Your task to perform on an android device: delete a single message in the gmail app Image 0: 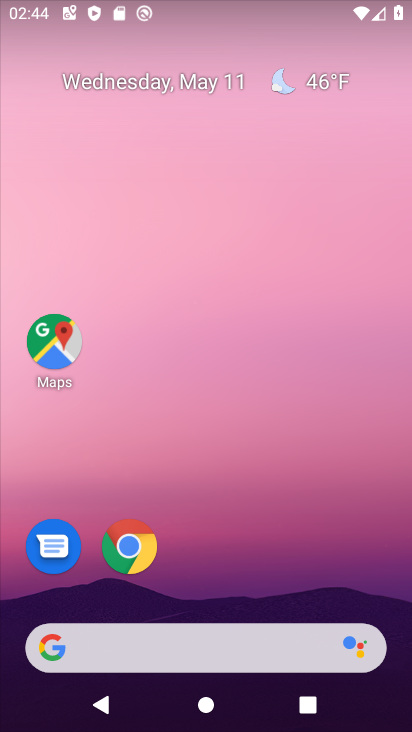
Step 0: drag from (209, 599) to (284, 353)
Your task to perform on an android device: delete a single message in the gmail app Image 1: 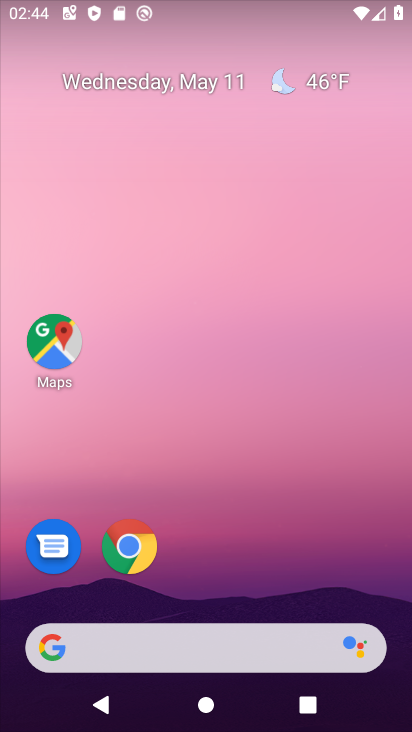
Step 1: drag from (231, 578) to (253, 46)
Your task to perform on an android device: delete a single message in the gmail app Image 2: 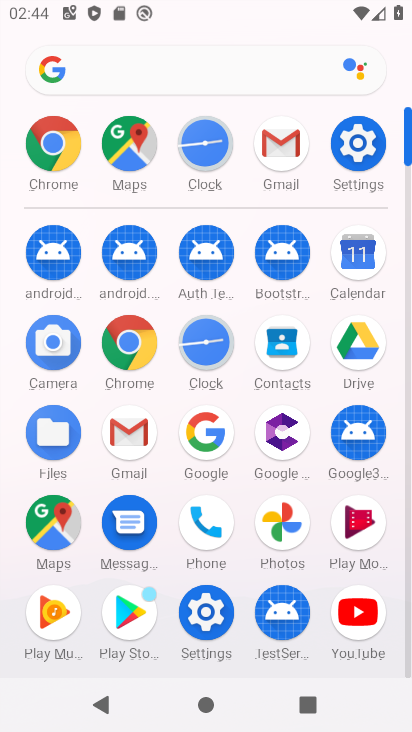
Step 2: click (127, 432)
Your task to perform on an android device: delete a single message in the gmail app Image 3: 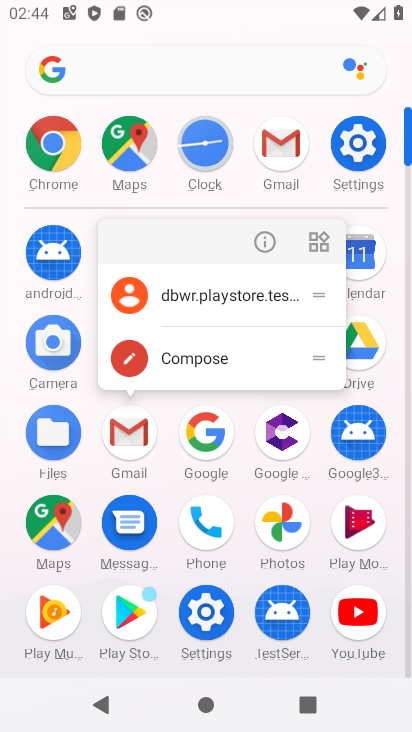
Step 3: click (267, 236)
Your task to perform on an android device: delete a single message in the gmail app Image 4: 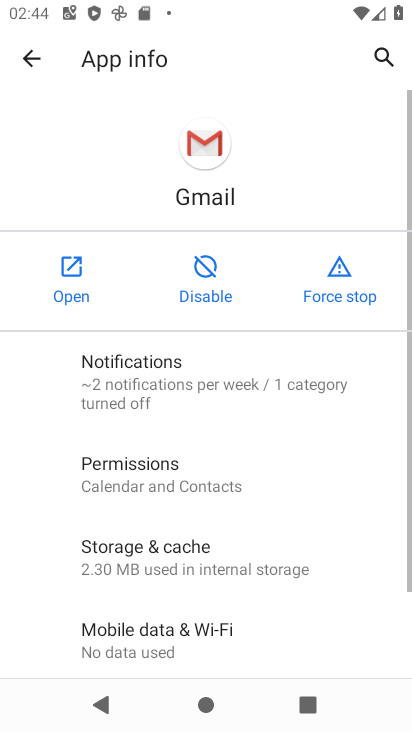
Step 4: click (62, 266)
Your task to perform on an android device: delete a single message in the gmail app Image 5: 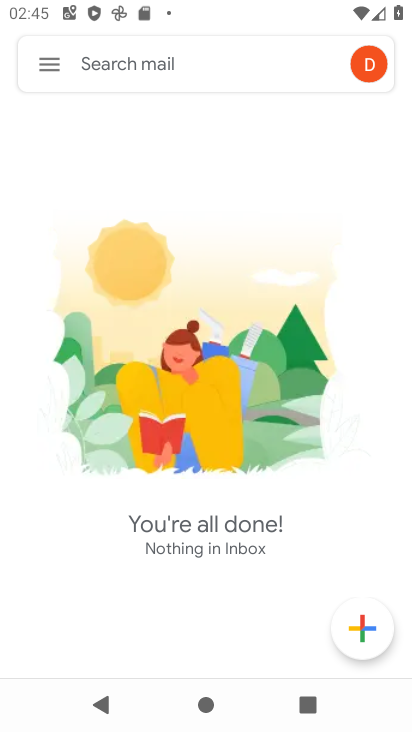
Step 5: click (51, 67)
Your task to perform on an android device: delete a single message in the gmail app Image 6: 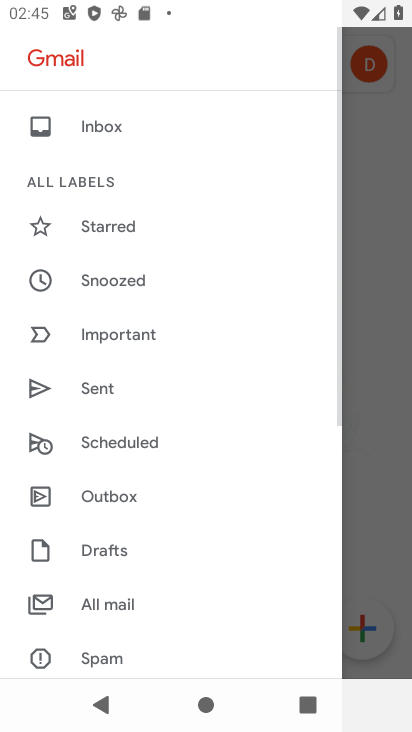
Step 6: drag from (125, 525) to (198, 122)
Your task to perform on an android device: delete a single message in the gmail app Image 7: 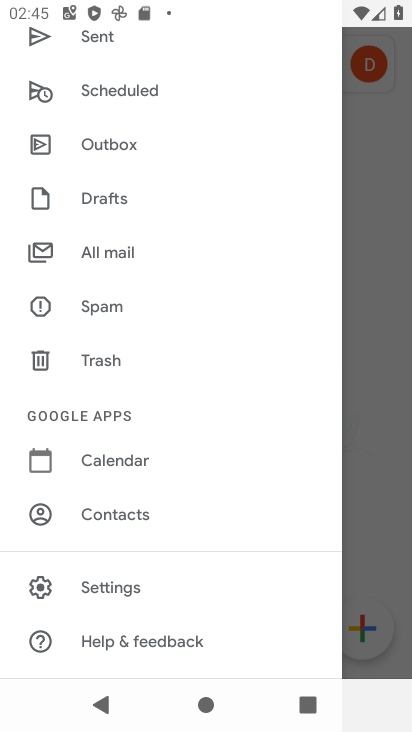
Step 7: drag from (233, 236) to (297, 727)
Your task to perform on an android device: delete a single message in the gmail app Image 8: 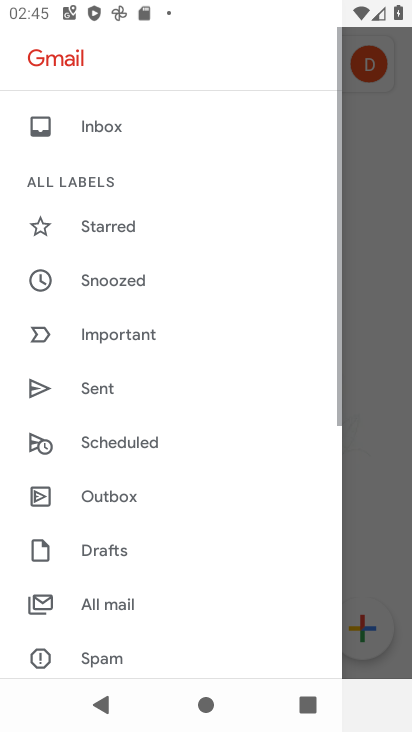
Step 8: click (125, 134)
Your task to perform on an android device: delete a single message in the gmail app Image 9: 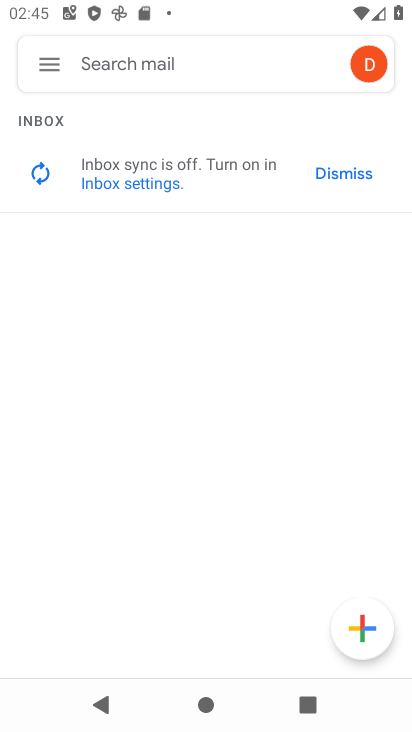
Step 9: task complete